Your task to perform on an android device: Show me popular games on the Play Store Image 0: 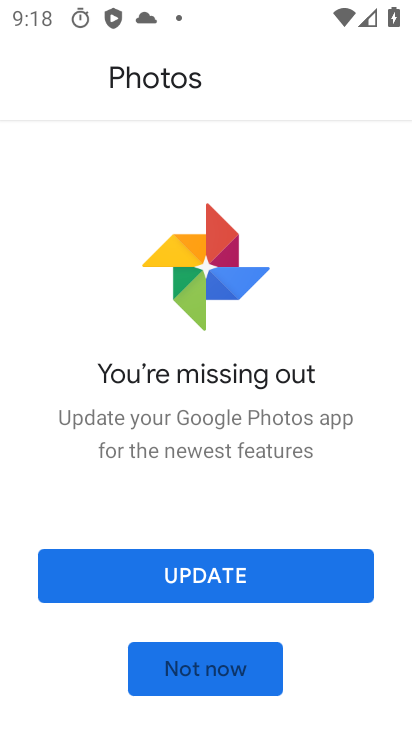
Step 0: click (213, 669)
Your task to perform on an android device: Show me popular games on the Play Store Image 1: 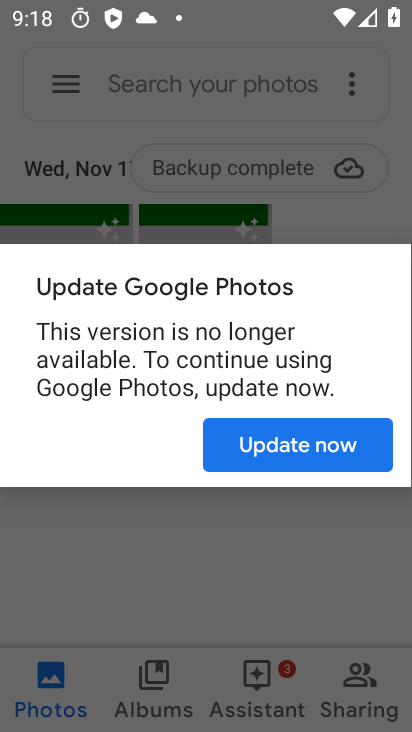
Step 1: click (300, 440)
Your task to perform on an android device: Show me popular games on the Play Store Image 2: 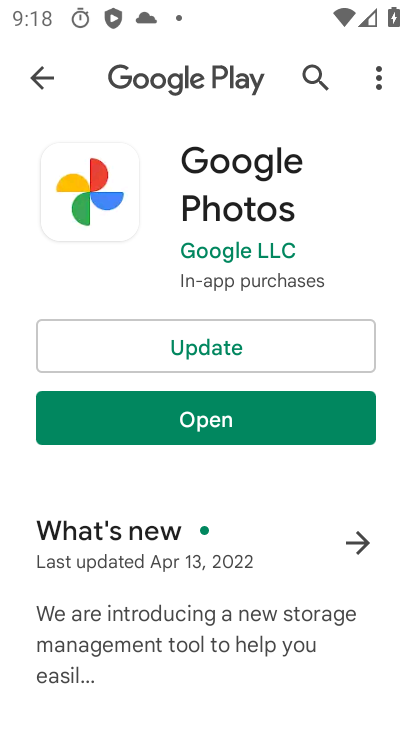
Step 2: click (37, 87)
Your task to perform on an android device: Show me popular games on the Play Store Image 3: 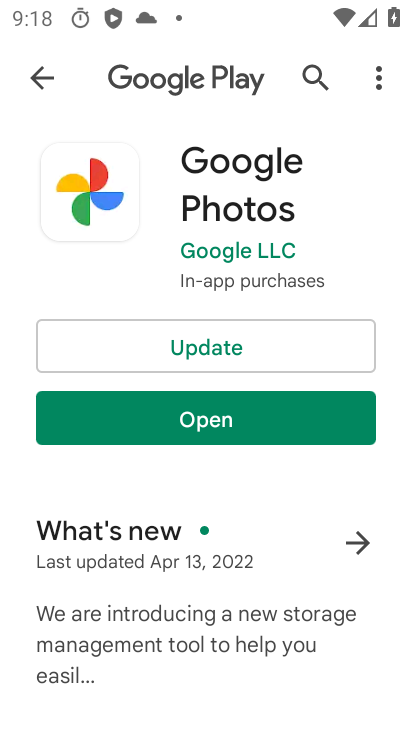
Step 3: click (38, 71)
Your task to perform on an android device: Show me popular games on the Play Store Image 4: 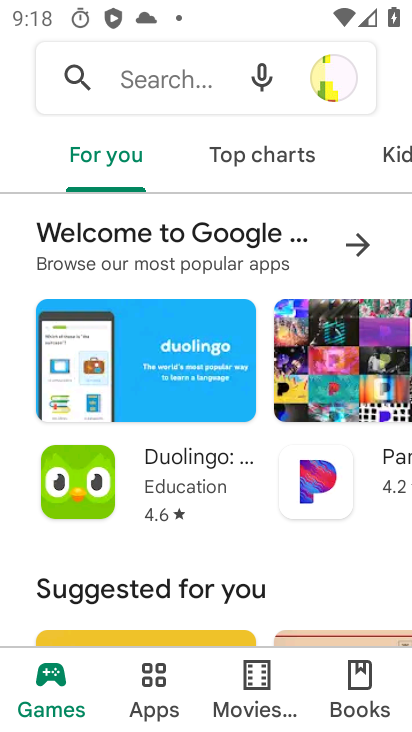
Step 4: press home button
Your task to perform on an android device: Show me popular games on the Play Store Image 5: 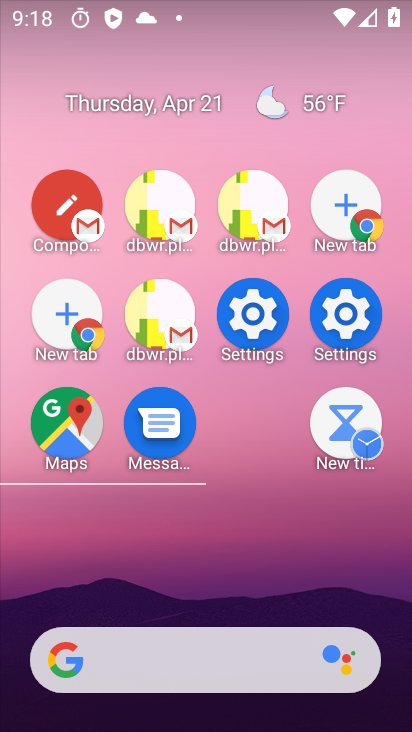
Step 5: drag from (205, 393) to (170, 141)
Your task to perform on an android device: Show me popular games on the Play Store Image 6: 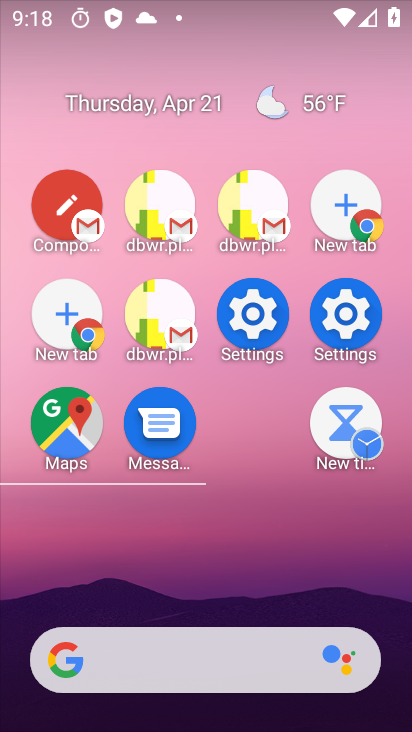
Step 6: drag from (255, 459) to (207, 152)
Your task to perform on an android device: Show me popular games on the Play Store Image 7: 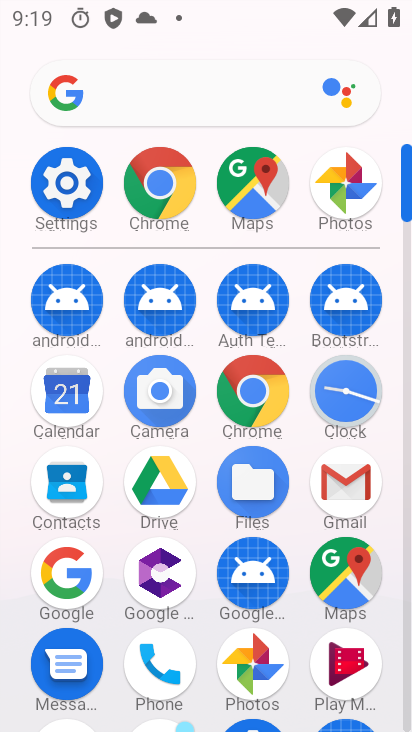
Step 7: drag from (272, 552) to (272, 196)
Your task to perform on an android device: Show me popular games on the Play Store Image 8: 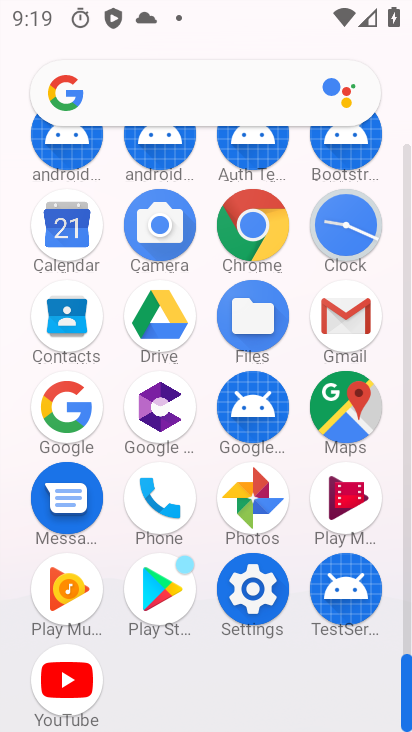
Step 8: click (153, 590)
Your task to perform on an android device: Show me popular games on the Play Store Image 9: 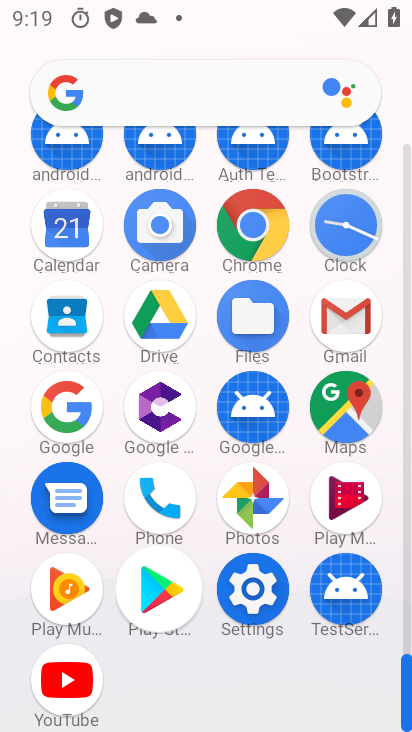
Step 9: click (153, 590)
Your task to perform on an android device: Show me popular games on the Play Store Image 10: 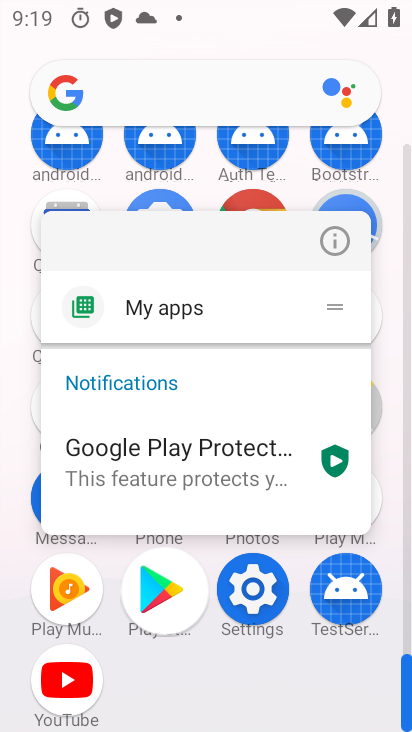
Step 10: click (160, 593)
Your task to perform on an android device: Show me popular games on the Play Store Image 11: 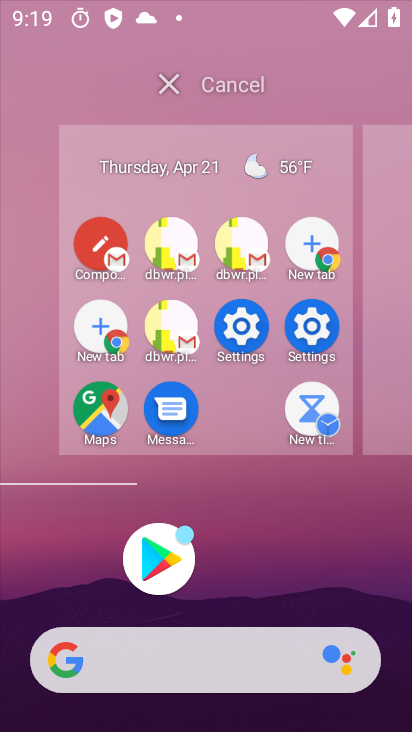
Step 11: click (170, 578)
Your task to perform on an android device: Show me popular games on the Play Store Image 12: 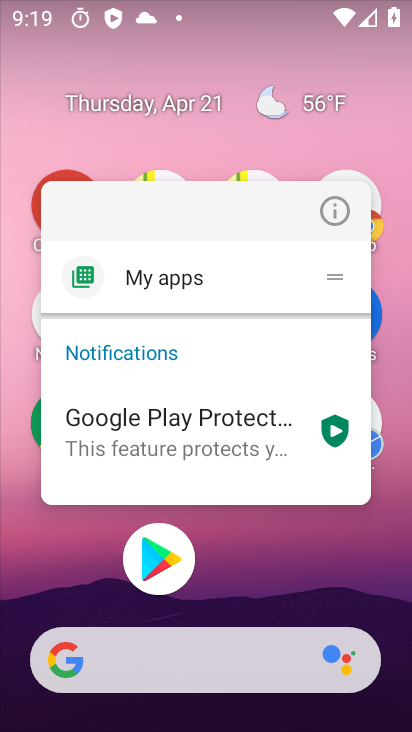
Step 12: drag from (169, 571) to (152, 540)
Your task to perform on an android device: Show me popular games on the Play Store Image 13: 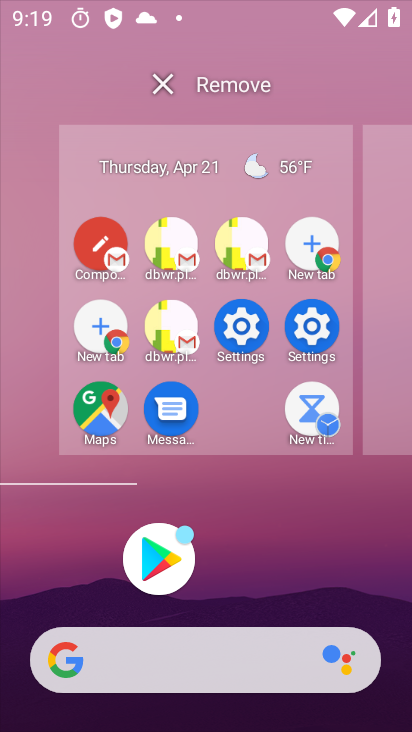
Step 13: drag from (228, 540) to (100, 2)
Your task to perform on an android device: Show me popular games on the Play Store Image 14: 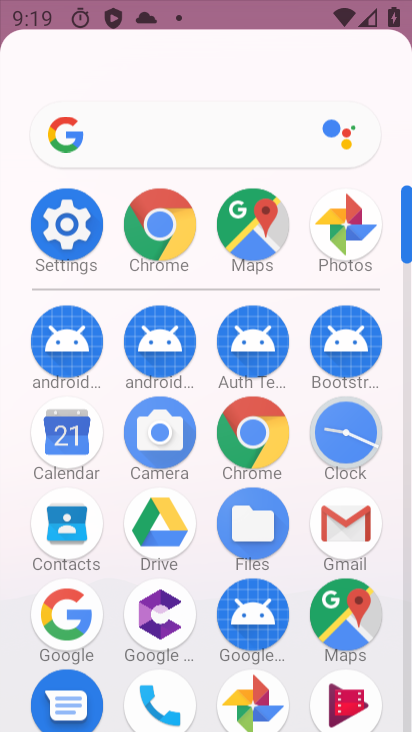
Step 14: drag from (262, 528) to (162, 98)
Your task to perform on an android device: Show me popular games on the Play Store Image 15: 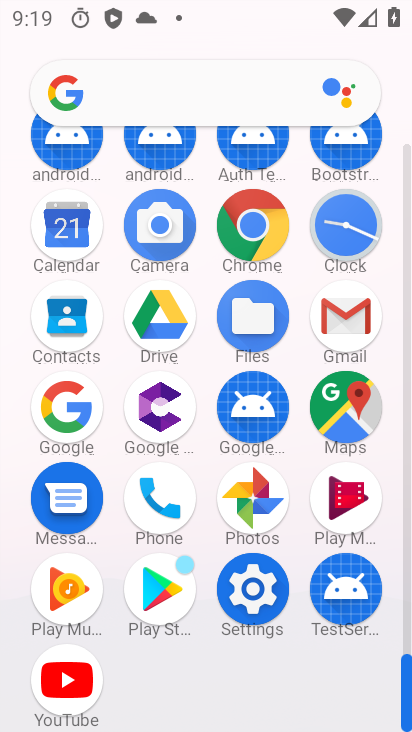
Step 15: click (157, 588)
Your task to perform on an android device: Show me popular games on the Play Store Image 16: 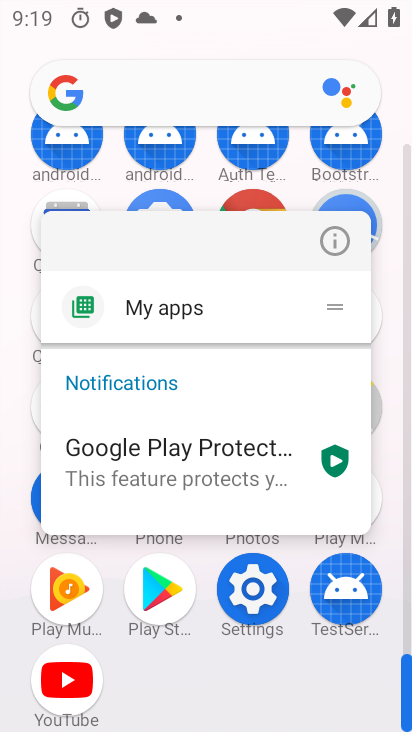
Step 16: drag from (150, 596) to (175, 569)
Your task to perform on an android device: Show me popular games on the Play Store Image 17: 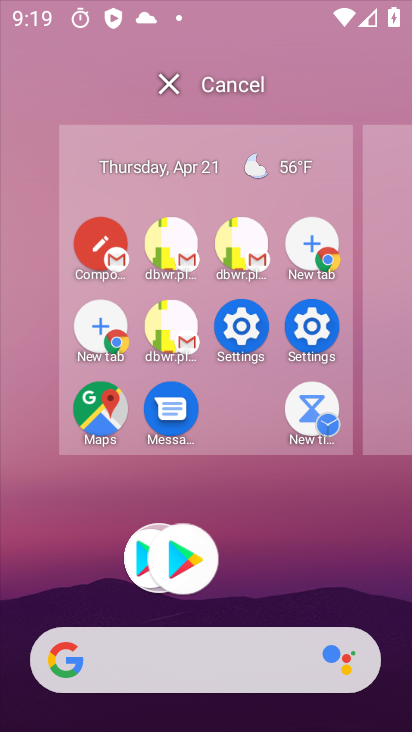
Step 17: drag from (331, 655) to (121, 156)
Your task to perform on an android device: Show me popular games on the Play Store Image 18: 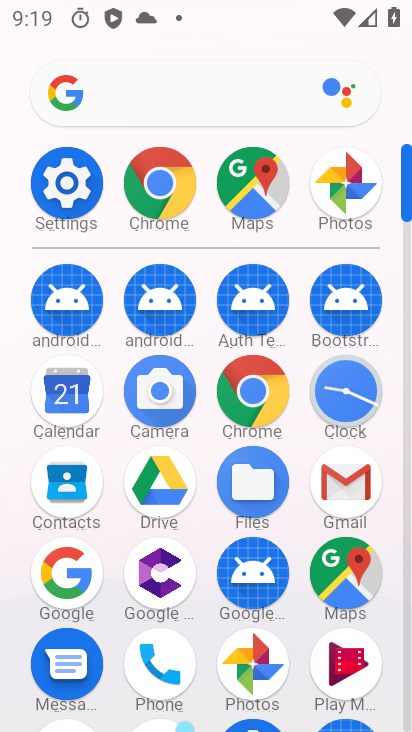
Step 18: drag from (273, 583) to (243, 83)
Your task to perform on an android device: Show me popular games on the Play Store Image 19: 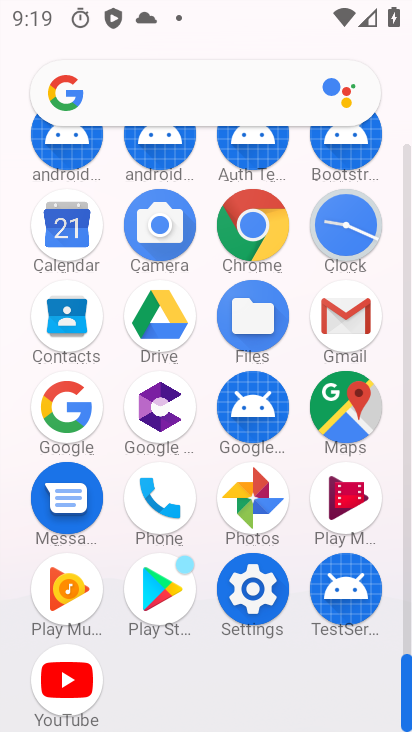
Step 19: drag from (274, 527) to (273, 190)
Your task to perform on an android device: Show me popular games on the Play Store Image 20: 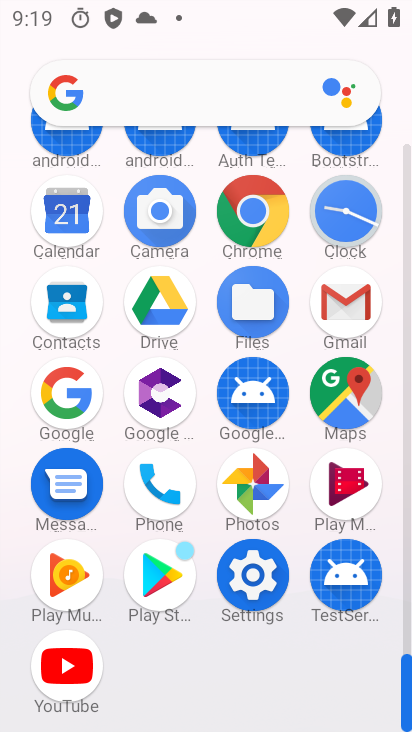
Step 20: click (151, 591)
Your task to perform on an android device: Show me popular games on the Play Store Image 21: 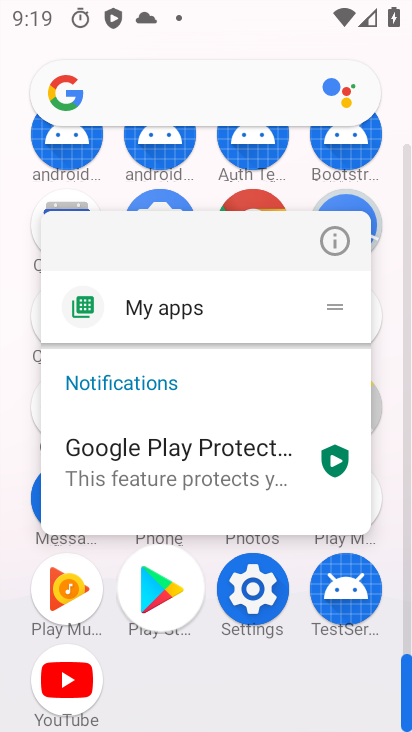
Step 21: click (155, 588)
Your task to perform on an android device: Show me popular games on the Play Store Image 22: 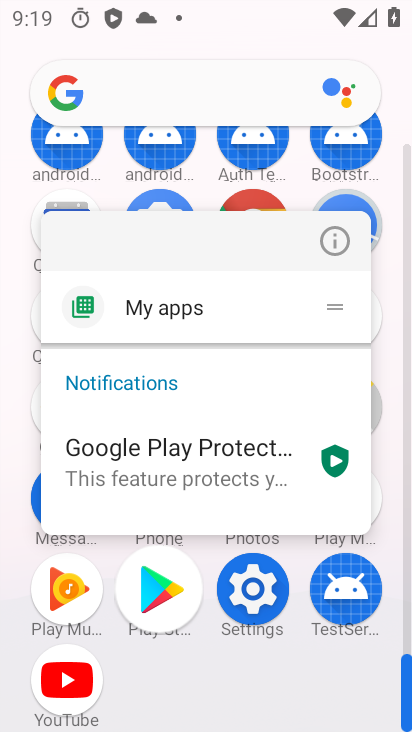
Step 22: click (159, 579)
Your task to perform on an android device: Show me popular games on the Play Store Image 23: 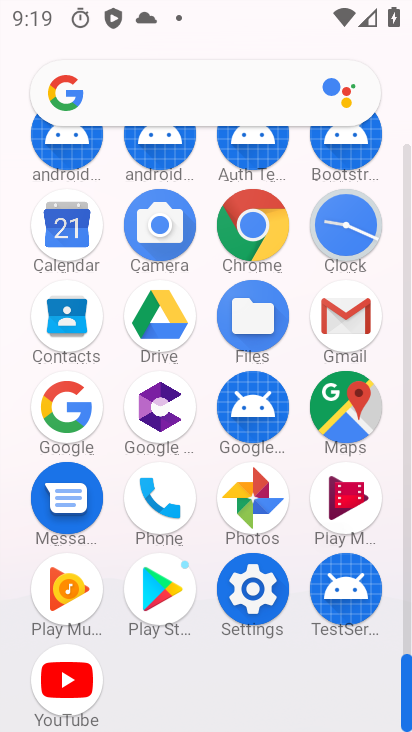
Step 23: click (161, 572)
Your task to perform on an android device: Show me popular games on the Play Store Image 24: 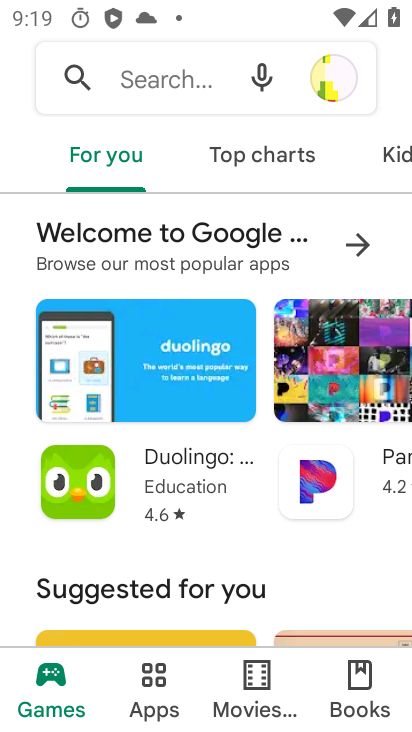
Step 24: click (161, 572)
Your task to perform on an android device: Show me popular games on the Play Store Image 25: 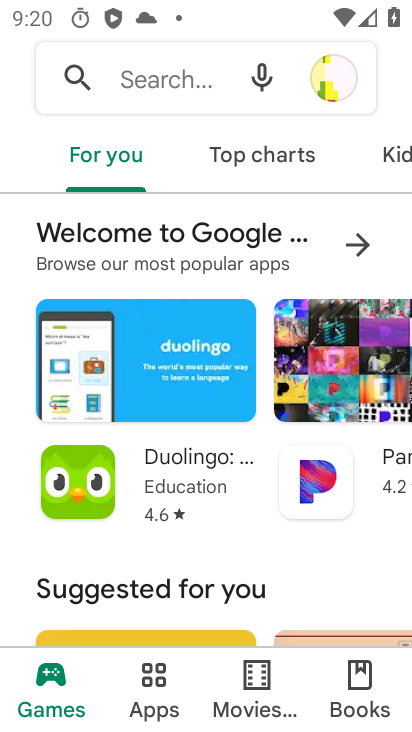
Step 25: task complete